Your task to perform on an android device: turn off translation in the chrome app Image 0: 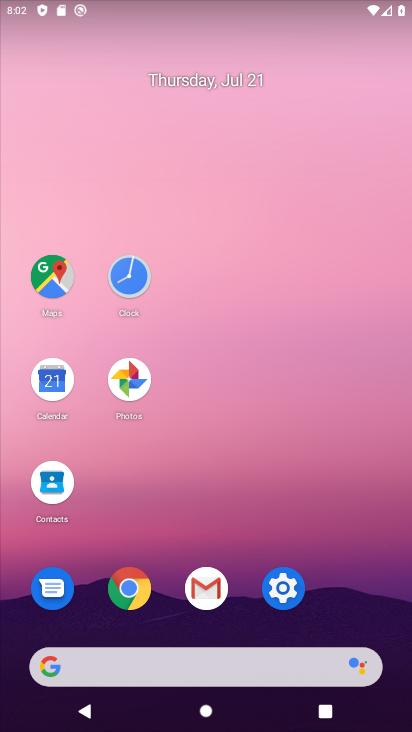
Step 0: click (128, 587)
Your task to perform on an android device: turn off translation in the chrome app Image 1: 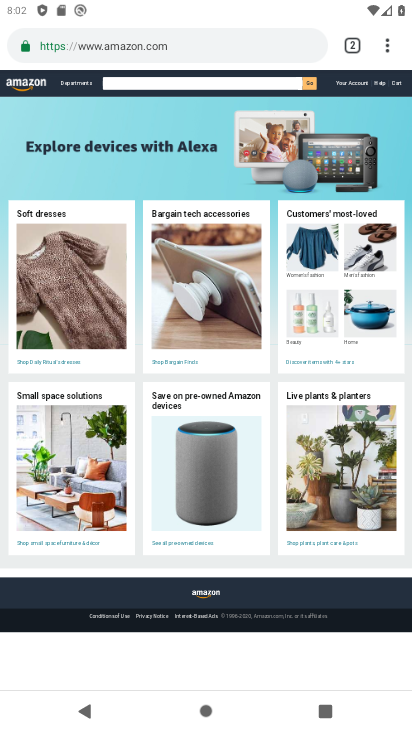
Step 1: click (388, 51)
Your task to perform on an android device: turn off translation in the chrome app Image 2: 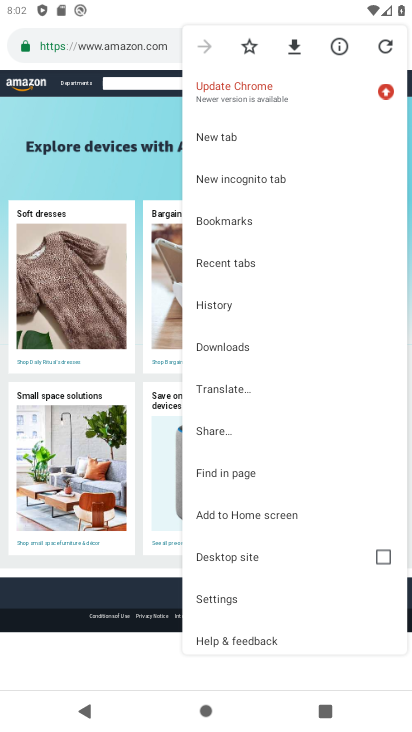
Step 2: click (214, 595)
Your task to perform on an android device: turn off translation in the chrome app Image 3: 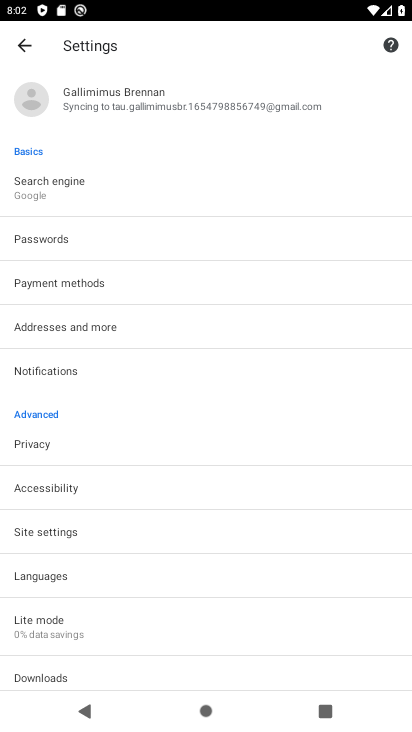
Step 3: click (59, 575)
Your task to perform on an android device: turn off translation in the chrome app Image 4: 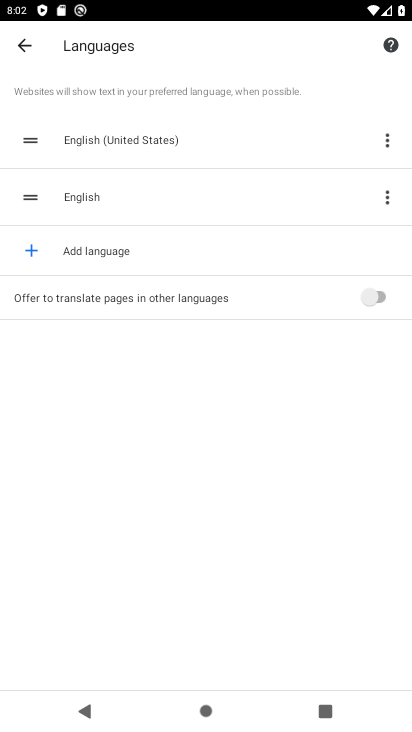
Step 4: task complete